Your task to perform on an android device: turn off smart reply in the gmail app Image 0: 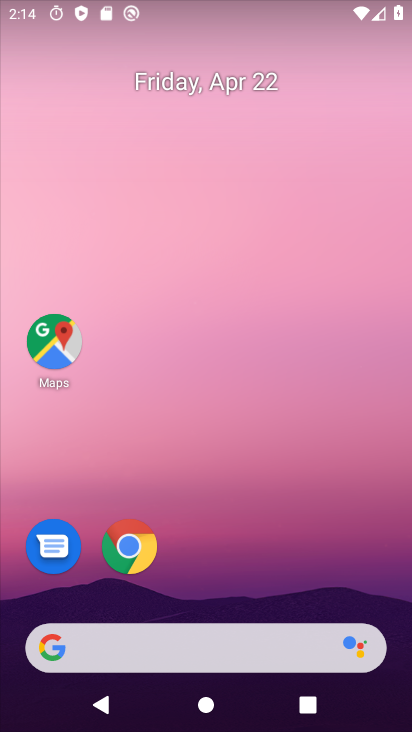
Step 0: click (224, 104)
Your task to perform on an android device: turn off smart reply in the gmail app Image 1: 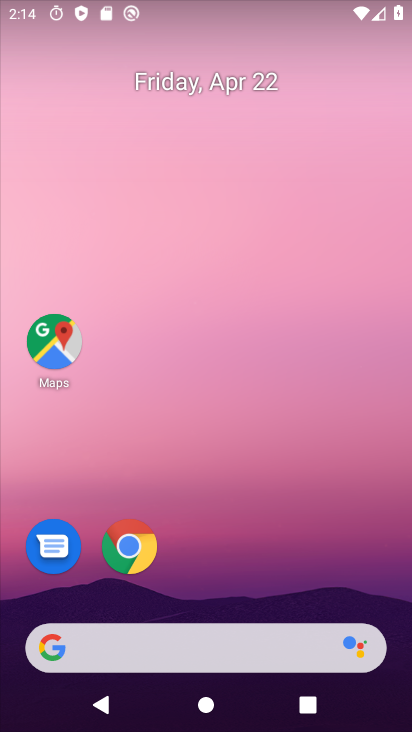
Step 1: drag from (206, 564) to (218, 191)
Your task to perform on an android device: turn off smart reply in the gmail app Image 2: 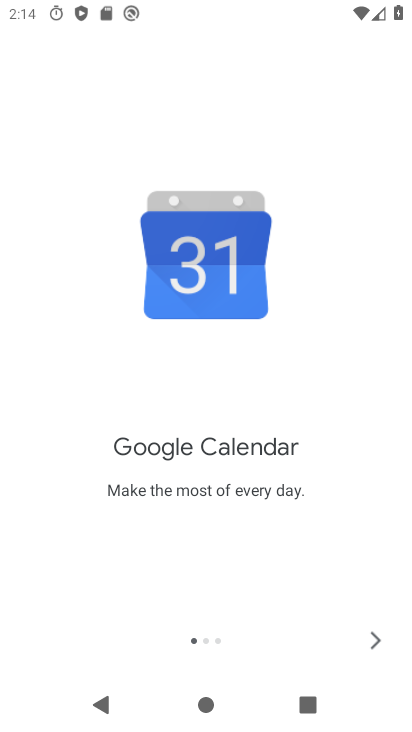
Step 2: click (380, 637)
Your task to perform on an android device: turn off smart reply in the gmail app Image 3: 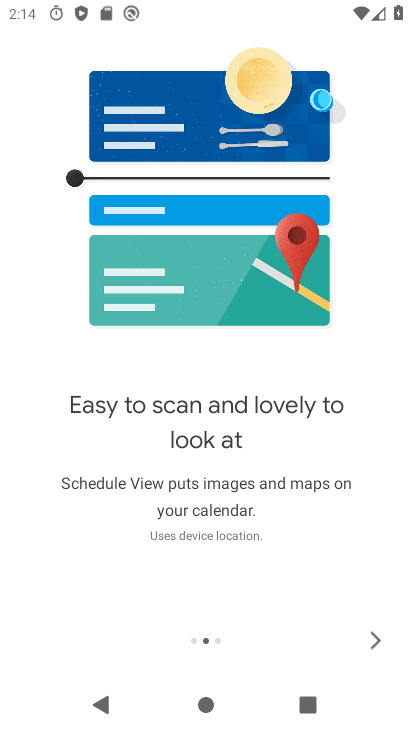
Step 3: press home button
Your task to perform on an android device: turn off smart reply in the gmail app Image 4: 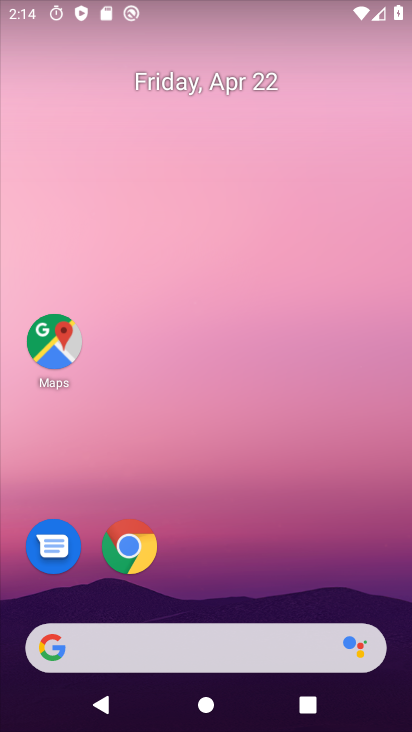
Step 4: drag from (193, 468) to (193, 220)
Your task to perform on an android device: turn off smart reply in the gmail app Image 5: 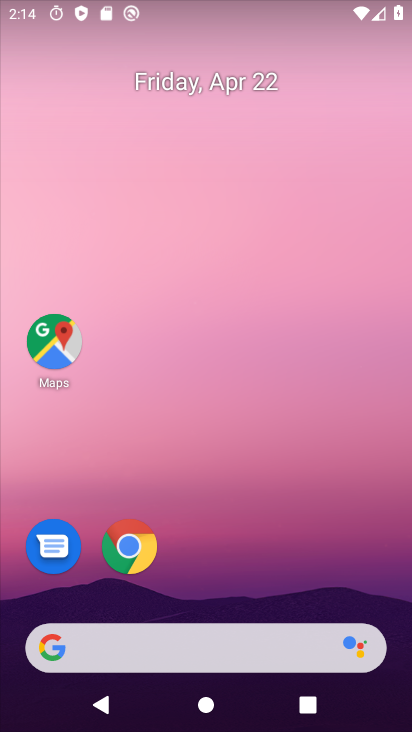
Step 5: drag from (179, 549) to (192, 185)
Your task to perform on an android device: turn off smart reply in the gmail app Image 6: 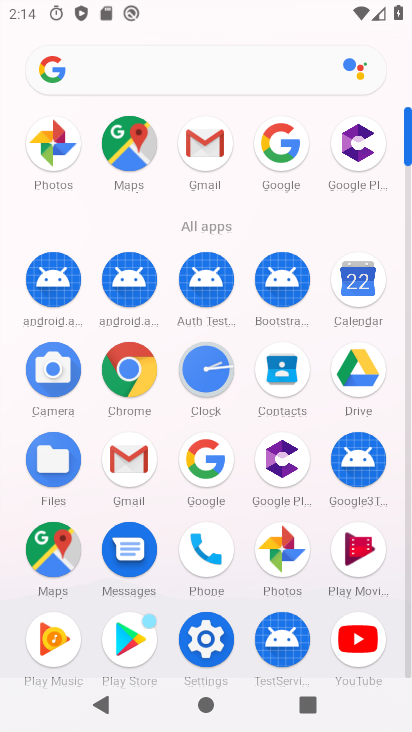
Step 6: click (131, 464)
Your task to perform on an android device: turn off smart reply in the gmail app Image 7: 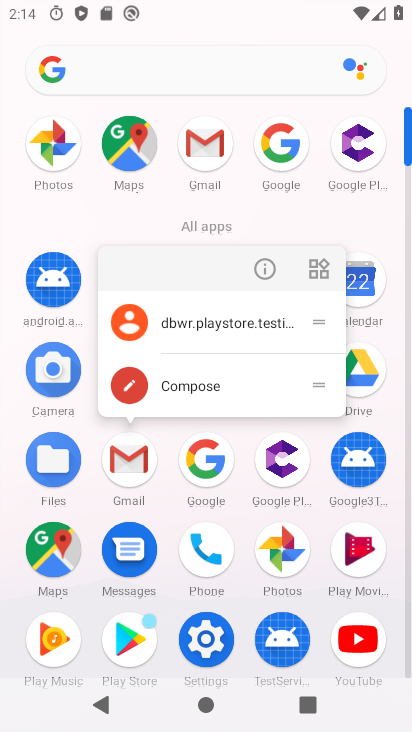
Step 7: click (256, 260)
Your task to perform on an android device: turn off smart reply in the gmail app Image 8: 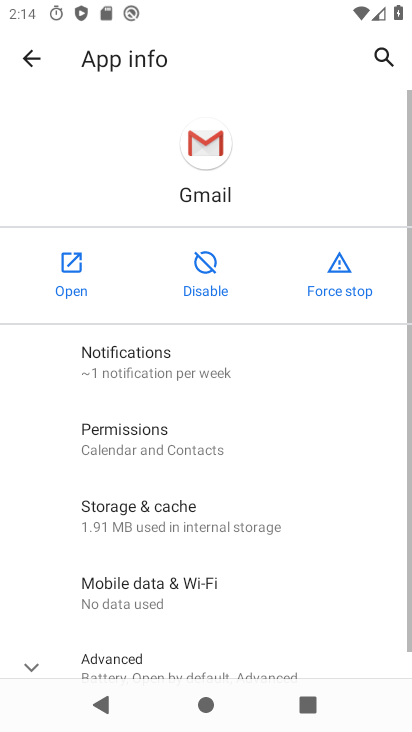
Step 8: click (69, 250)
Your task to perform on an android device: turn off smart reply in the gmail app Image 9: 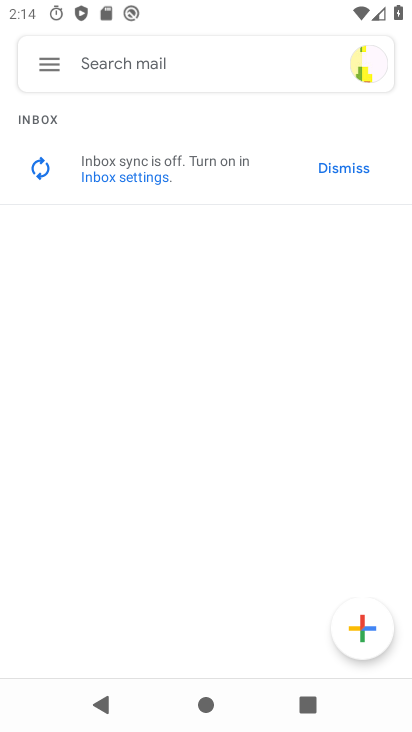
Step 9: click (44, 72)
Your task to perform on an android device: turn off smart reply in the gmail app Image 10: 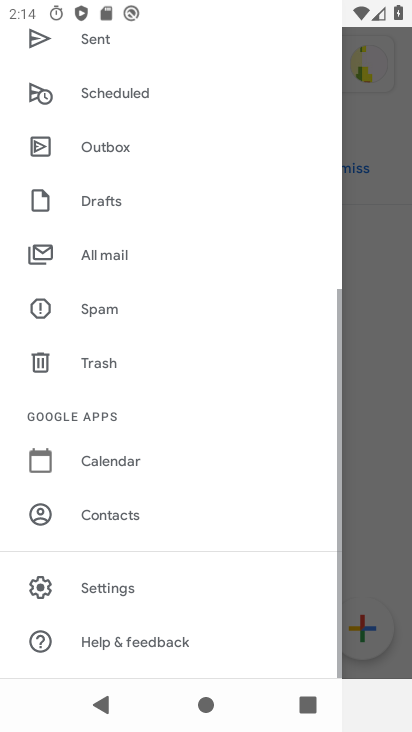
Step 10: click (124, 586)
Your task to perform on an android device: turn off smart reply in the gmail app Image 11: 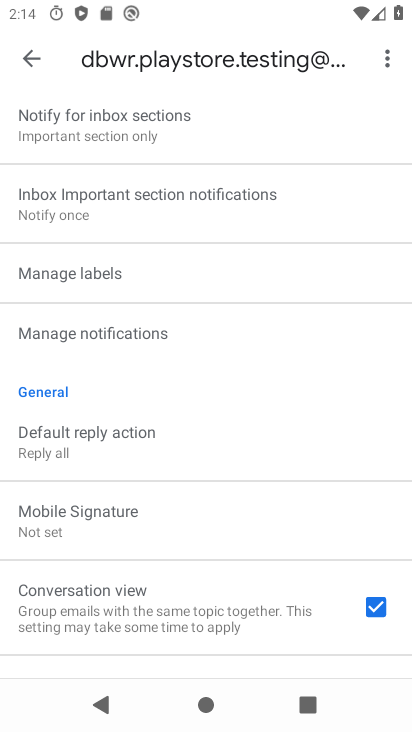
Step 11: drag from (221, 483) to (306, 2)
Your task to perform on an android device: turn off smart reply in the gmail app Image 12: 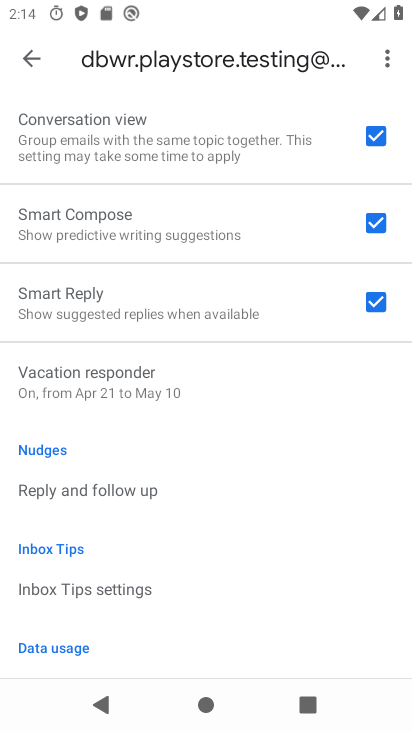
Step 12: click (357, 309)
Your task to perform on an android device: turn off smart reply in the gmail app Image 13: 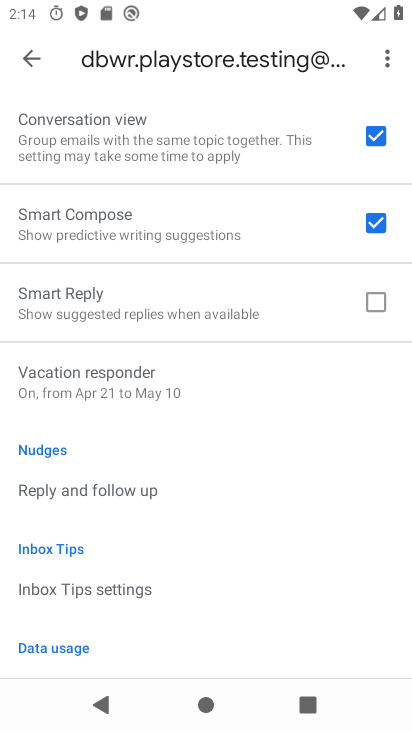
Step 13: task complete